Your task to perform on an android device: Play the last video I watched on Youtube Image 0: 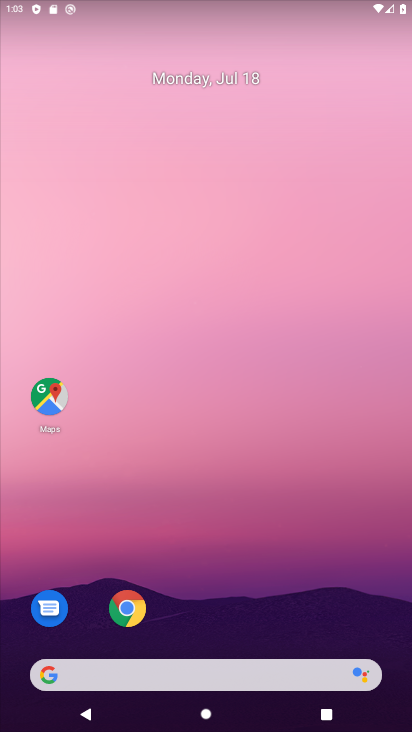
Step 0: drag from (261, 638) to (232, 35)
Your task to perform on an android device: Play the last video I watched on Youtube Image 1: 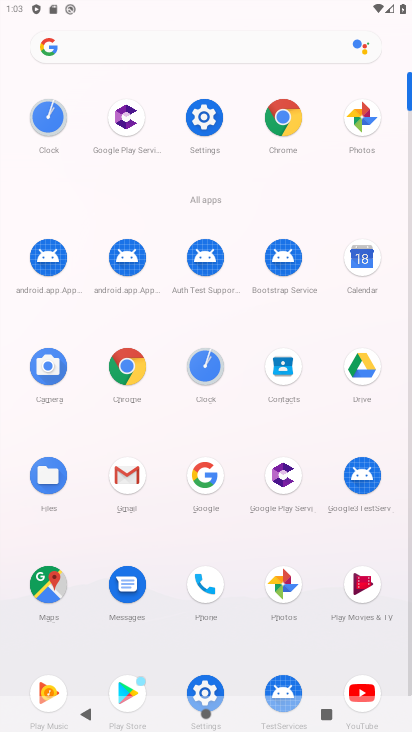
Step 1: click (363, 685)
Your task to perform on an android device: Play the last video I watched on Youtube Image 2: 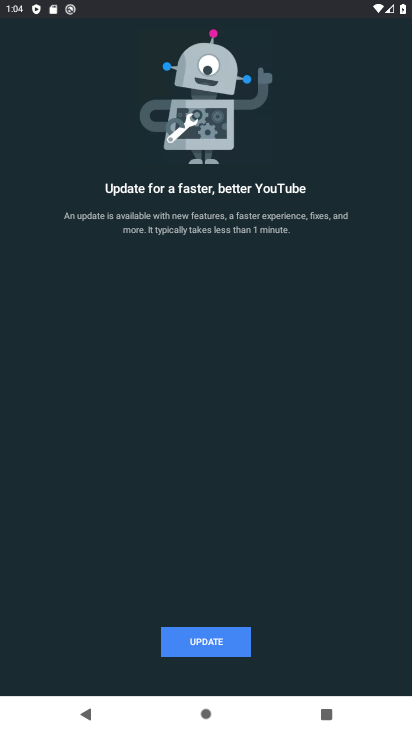
Step 2: click (211, 653)
Your task to perform on an android device: Play the last video I watched on Youtube Image 3: 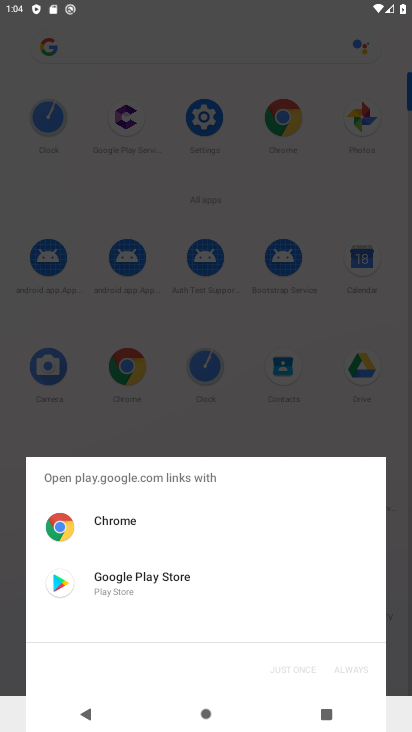
Step 3: click (209, 591)
Your task to perform on an android device: Play the last video I watched on Youtube Image 4: 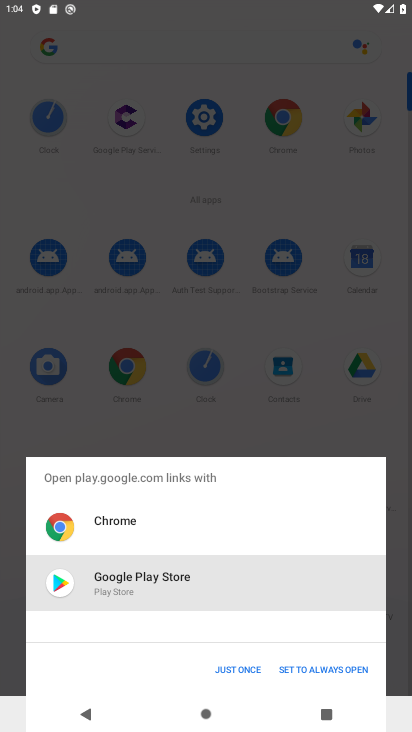
Step 4: click (251, 674)
Your task to perform on an android device: Play the last video I watched on Youtube Image 5: 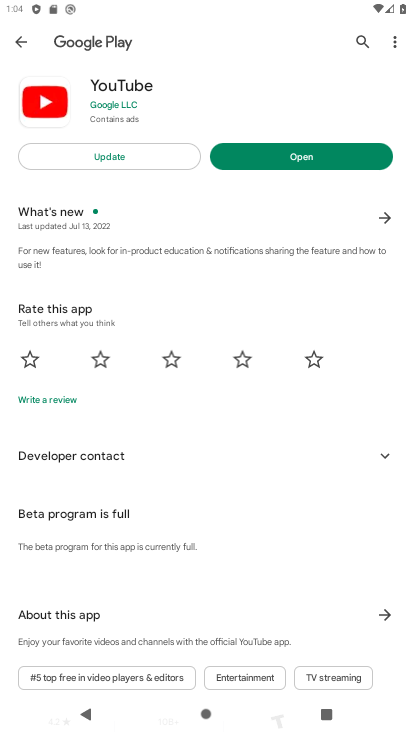
Step 5: click (150, 153)
Your task to perform on an android device: Play the last video I watched on Youtube Image 6: 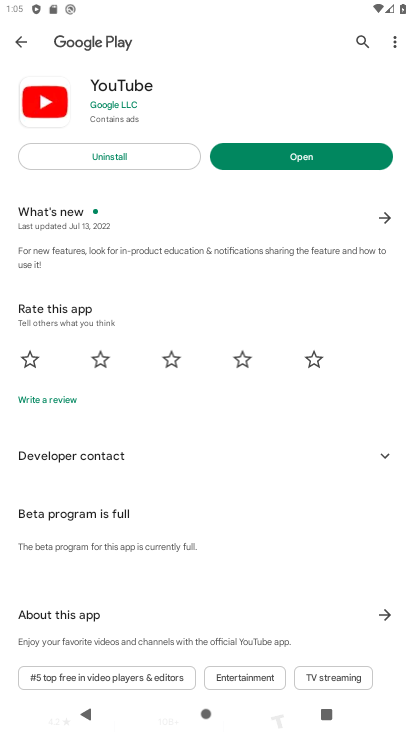
Step 6: click (320, 163)
Your task to perform on an android device: Play the last video I watched on Youtube Image 7: 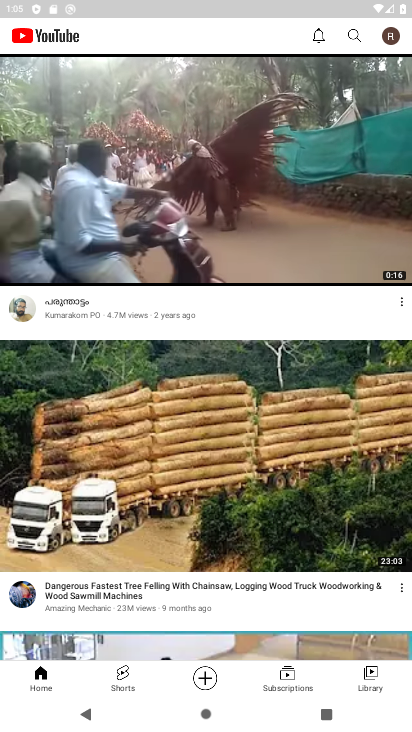
Step 7: click (378, 687)
Your task to perform on an android device: Play the last video I watched on Youtube Image 8: 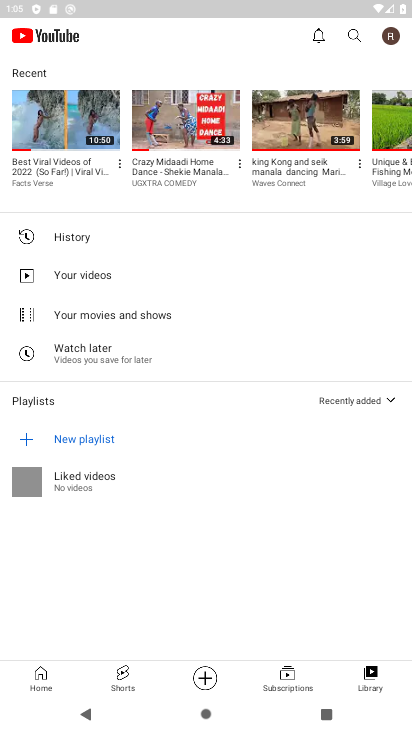
Step 8: click (106, 233)
Your task to perform on an android device: Play the last video I watched on Youtube Image 9: 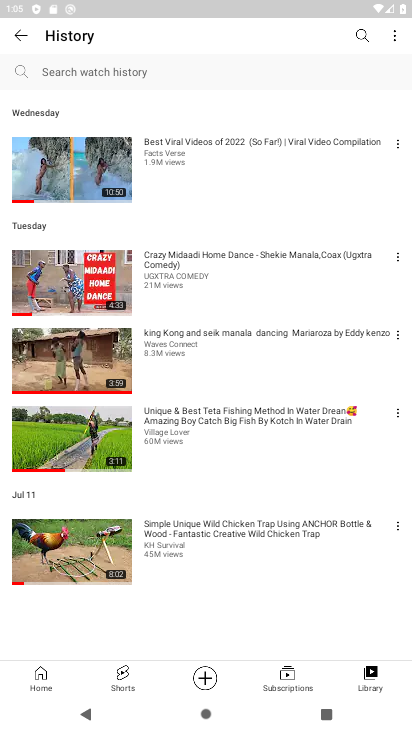
Step 9: click (147, 165)
Your task to perform on an android device: Play the last video I watched on Youtube Image 10: 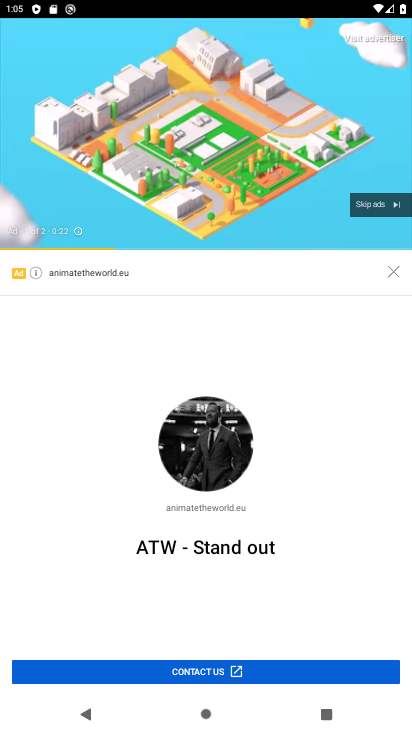
Step 10: task complete